Your task to perform on an android device: turn off location history Image 0: 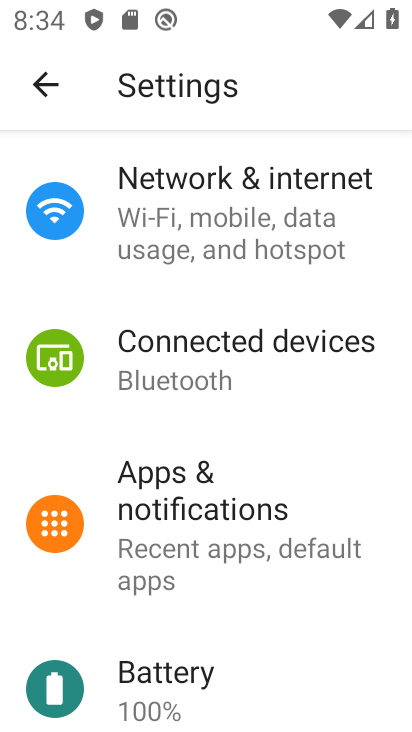
Step 0: drag from (168, 616) to (159, 347)
Your task to perform on an android device: turn off location history Image 1: 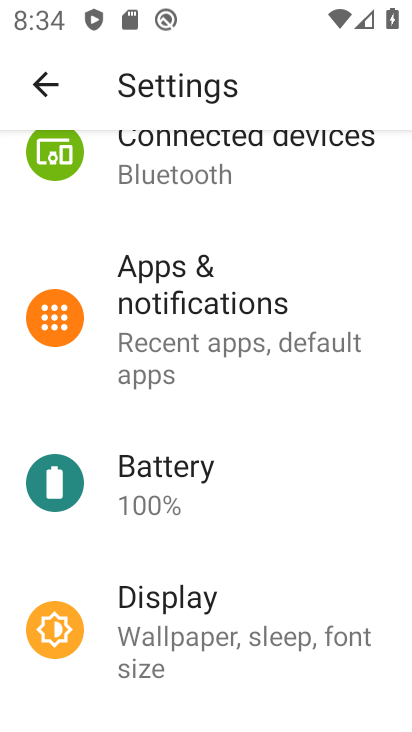
Step 1: drag from (183, 652) to (189, 332)
Your task to perform on an android device: turn off location history Image 2: 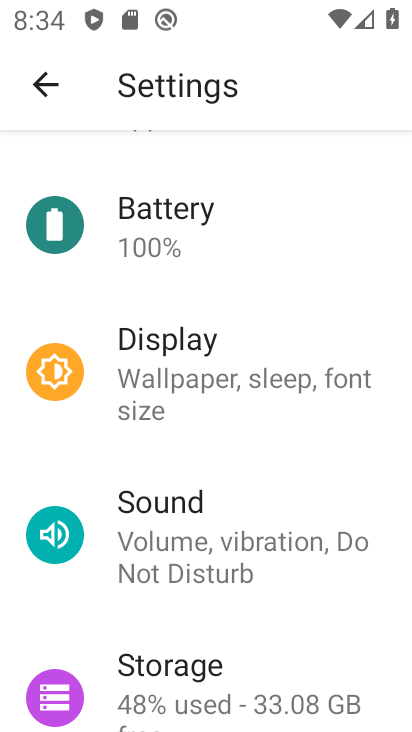
Step 2: drag from (192, 658) to (190, 250)
Your task to perform on an android device: turn off location history Image 3: 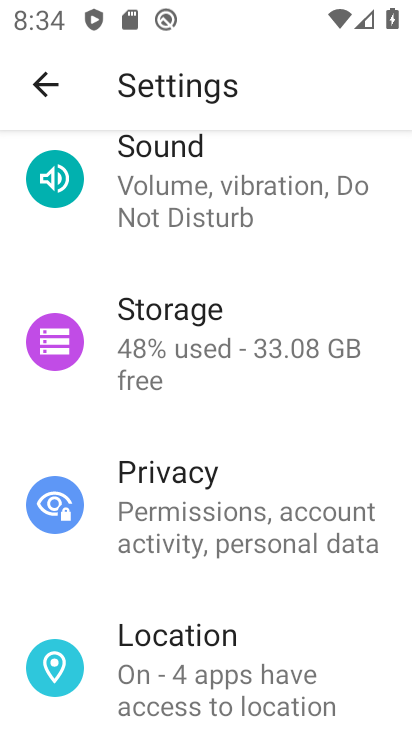
Step 3: drag from (198, 642) to (208, 306)
Your task to perform on an android device: turn off location history Image 4: 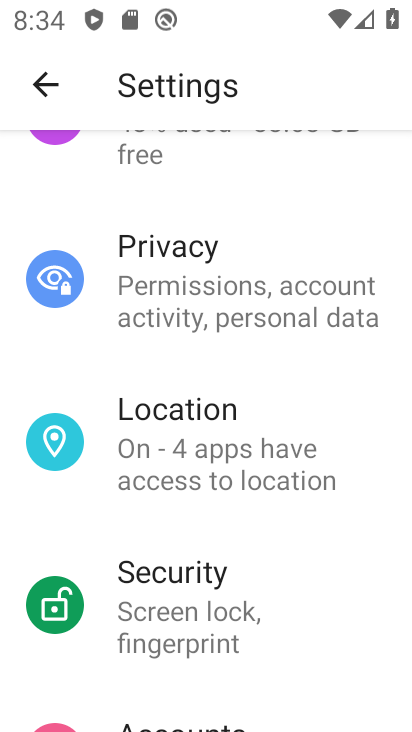
Step 4: click (187, 415)
Your task to perform on an android device: turn off location history Image 5: 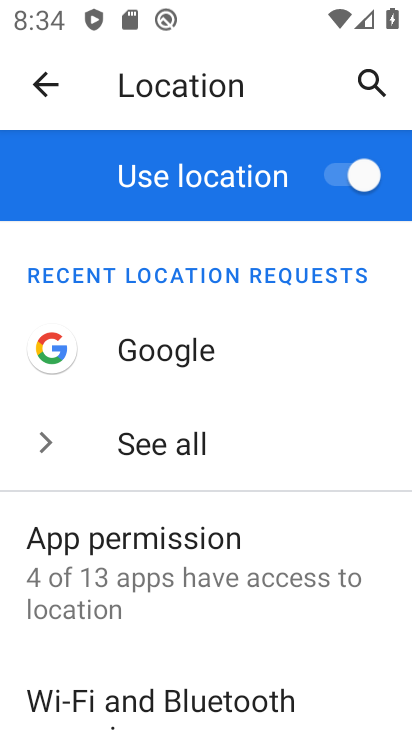
Step 5: drag from (214, 595) to (171, 355)
Your task to perform on an android device: turn off location history Image 6: 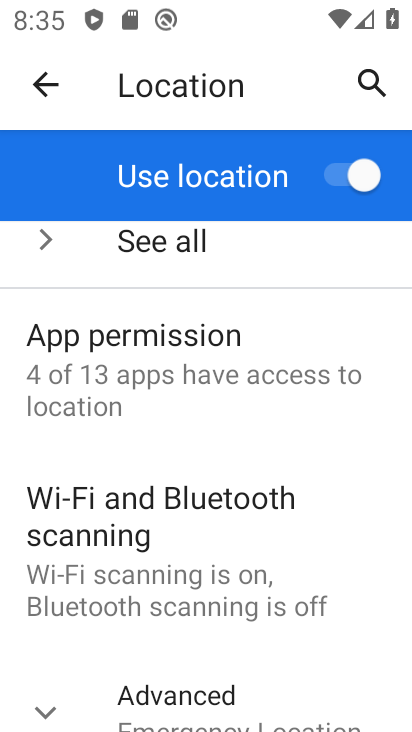
Step 6: click (171, 707)
Your task to perform on an android device: turn off location history Image 7: 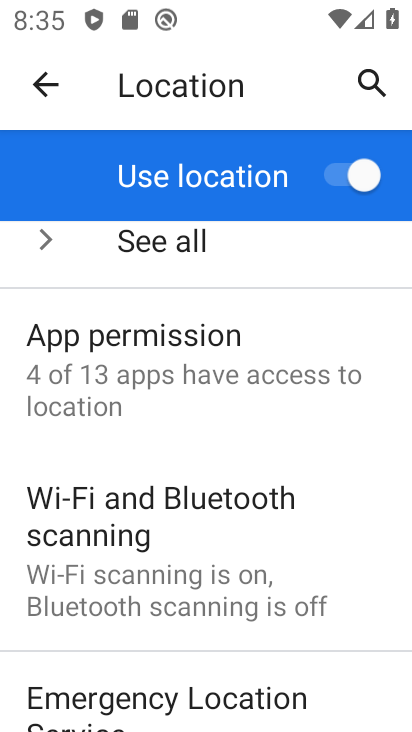
Step 7: drag from (182, 467) to (213, 269)
Your task to perform on an android device: turn off location history Image 8: 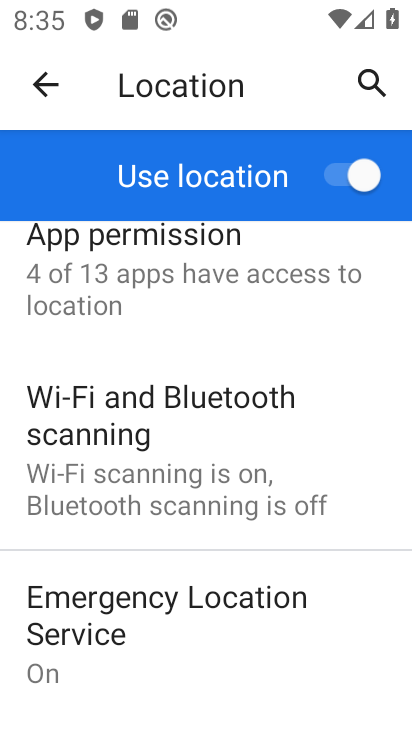
Step 8: drag from (176, 608) to (167, 400)
Your task to perform on an android device: turn off location history Image 9: 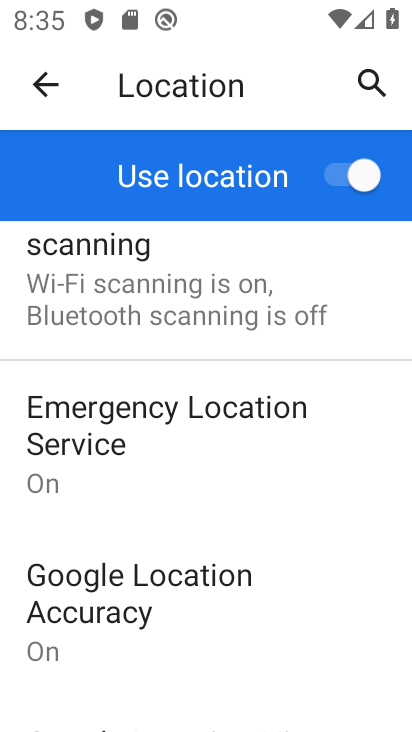
Step 9: drag from (238, 669) to (320, 208)
Your task to perform on an android device: turn off location history Image 10: 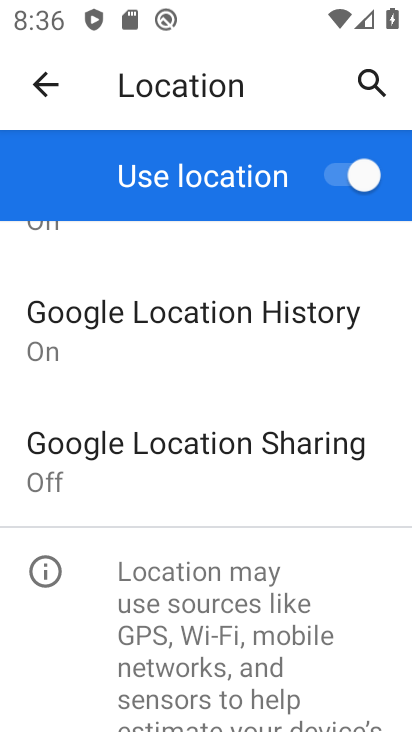
Step 10: click (288, 320)
Your task to perform on an android device: turn off location history Image 11: 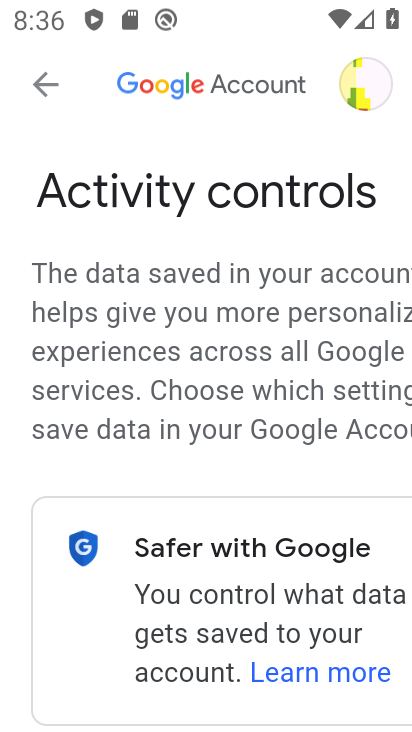
Step 11: drag from (233, 588) to (231, 217)
Your task to perform on an android device: turn off location history Image 12: 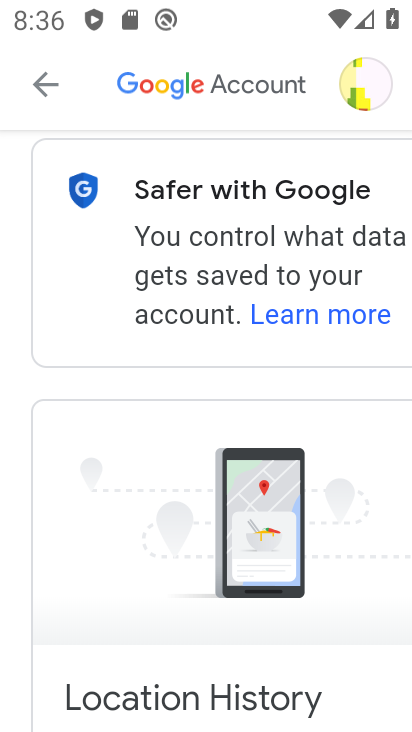
Step 12: drag from (191, 638) to (192, 226)
Your task to perform on an android device: turn off location history Image 13: 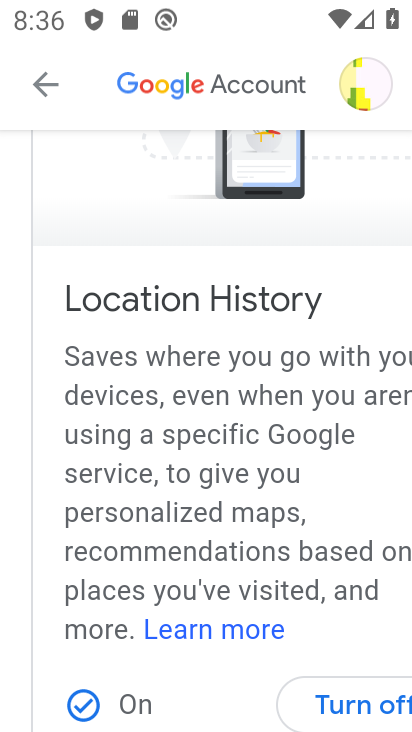
Step 13: click (355, 709)
Your task to perform on an android device: turn off location history Image 14: 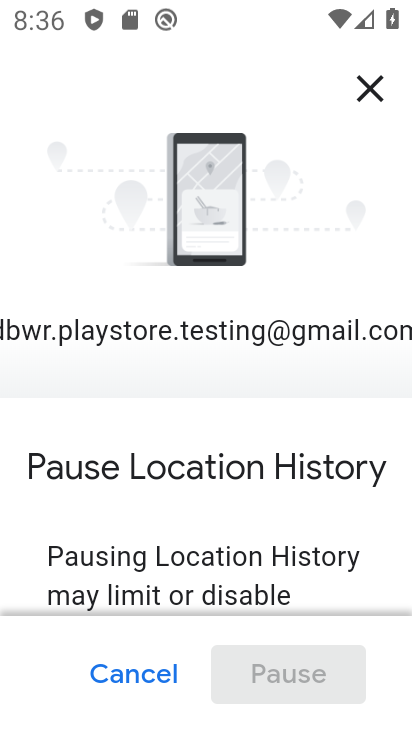
Step 14: drag from (234, 593) to (187, 60)
Your task to perform on an android device: turn off location history Image 15: 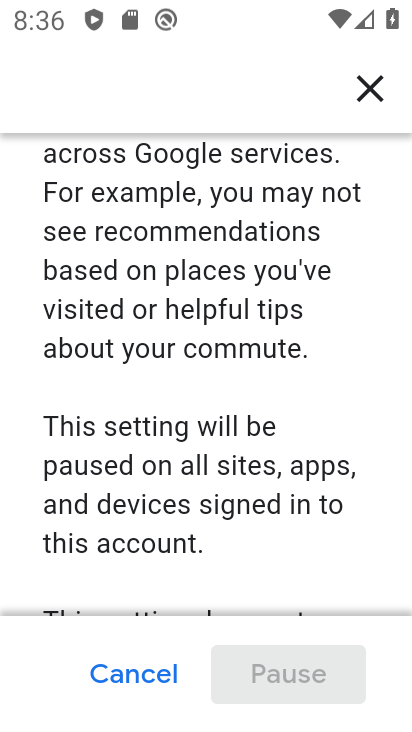
Step 15: drag from (214, 566) to (140, 99)
Your task to perform on an android device: turn off location history Image 16: 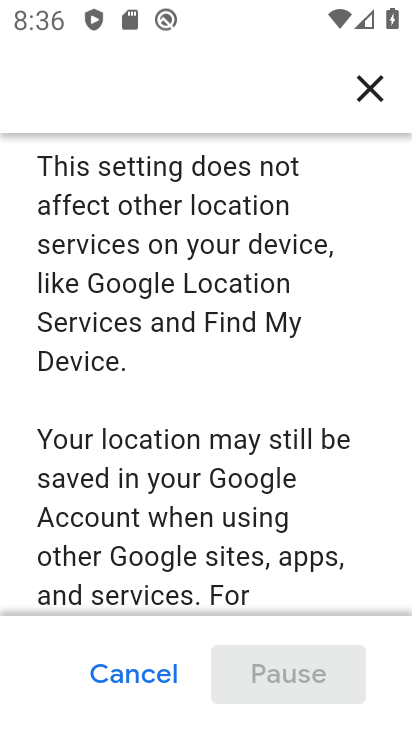
Step 16: drag from (258, 558) to (166, 84)
Your task to perform on an android device: turn off location history Image 17: 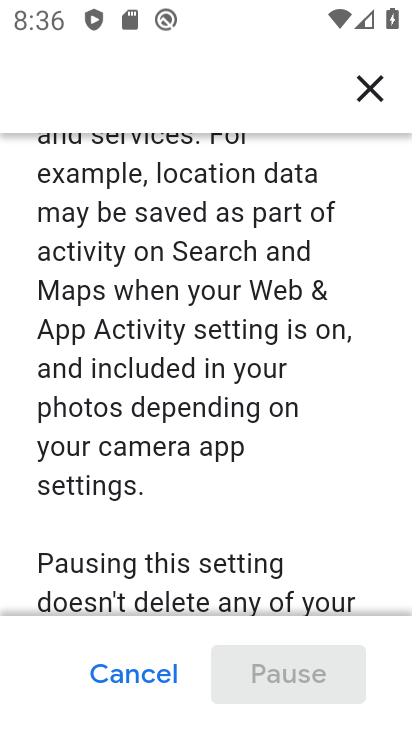
Step 17: drag from (286, 568) to (175, 96)
Your task to perform on an android device: turn off location history Image 18: 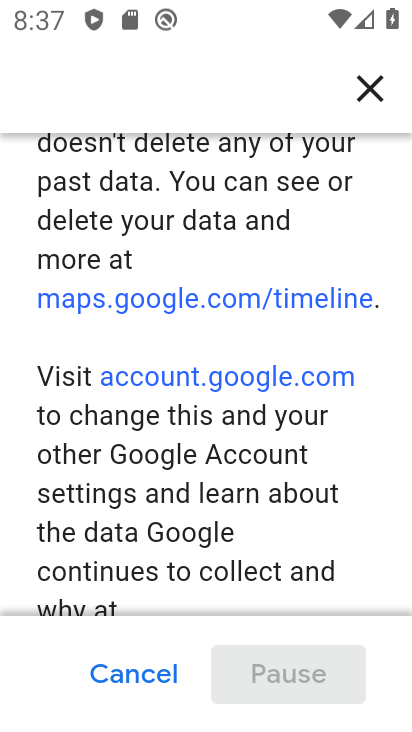
Step 18: drag from (282, 508) to (249, 110)
Your task to perform on an android device: turn off location history Image 19: 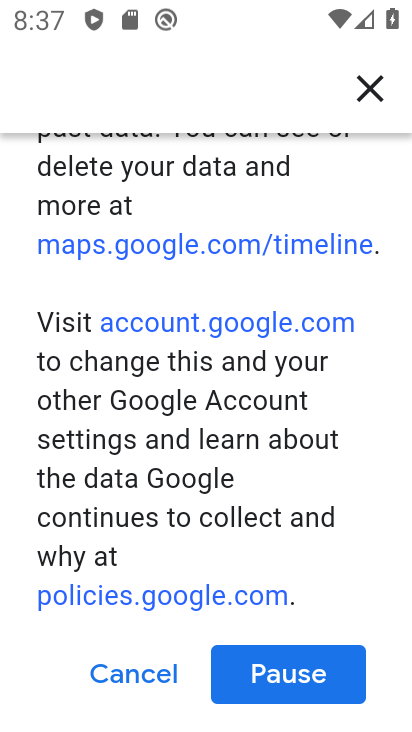
Step 19: click (320, 683)
Your task to perform on an android device: turn off location history Image 20: 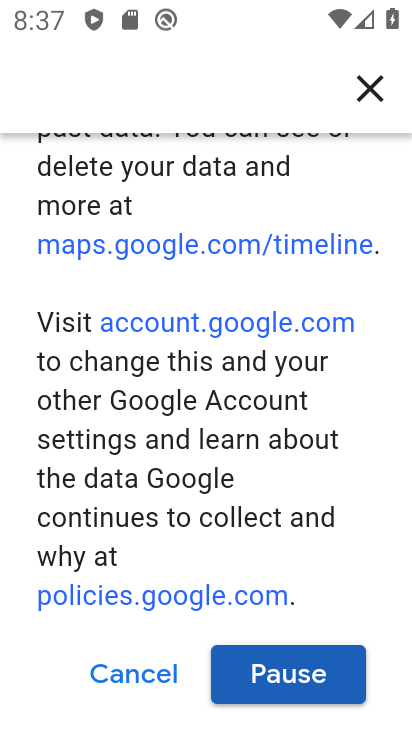
Step 20: click (278, 684)
Your task to perform on an android device: turn off location history Image 21: 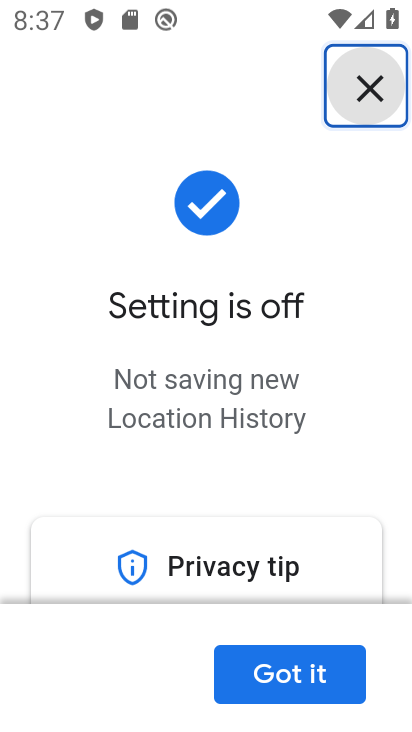
Step 21: click (309, 670)
Your task to perform on an android device: turn off location history Image 22: 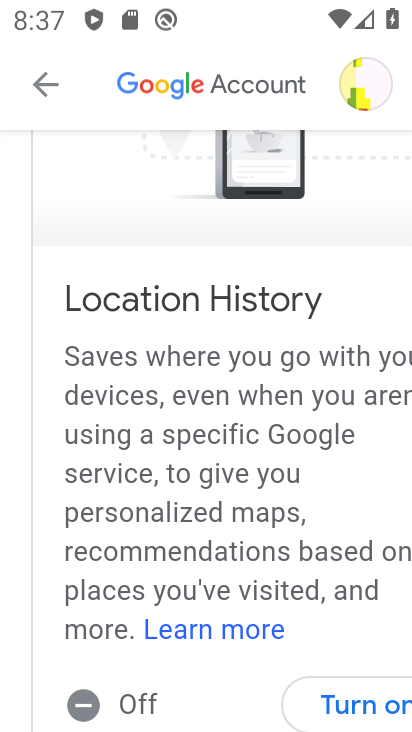
Step 22: task complete